Your task to perform on an android device: turn vacation reply on in the gmail app Image 0: 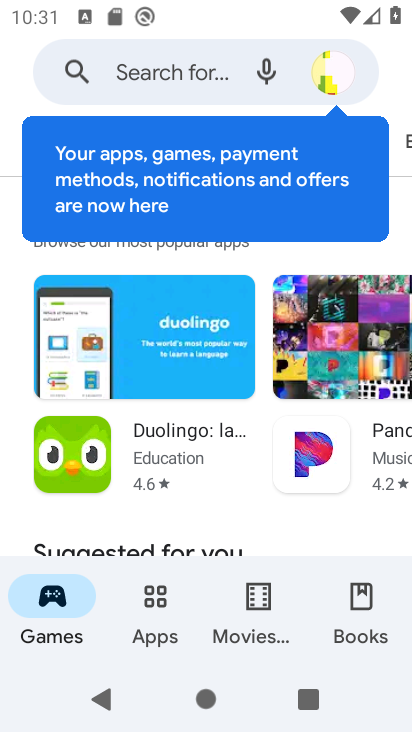
Step 0: press home button
Your task to perform on an android device: turn vacation reply on in the gmail app Image 1: 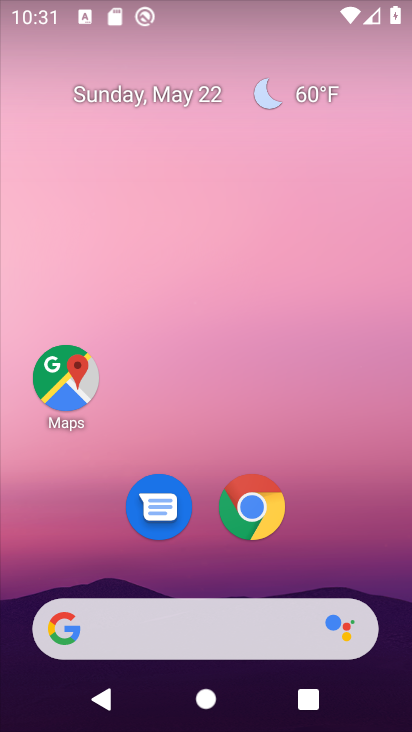
Step 1: drag from (198, 572) to (219, 109)
Your task to perform on an android device: turn vacation reply on in the gmail app Image 2: 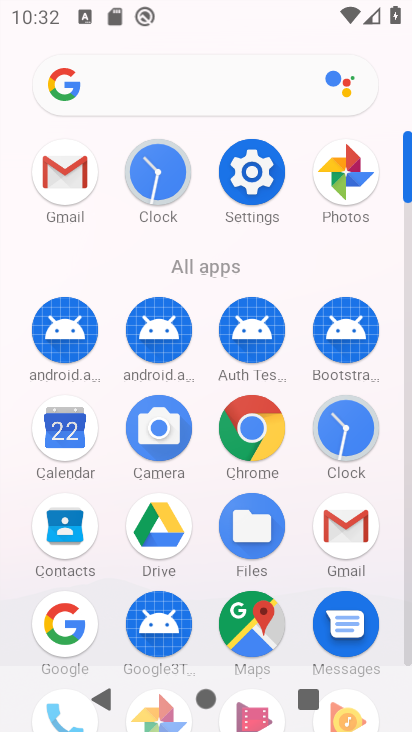
Step 2: click (81, 197)
Your task to perform on an android device: turn vacation reply on in the gmail app Image 3: 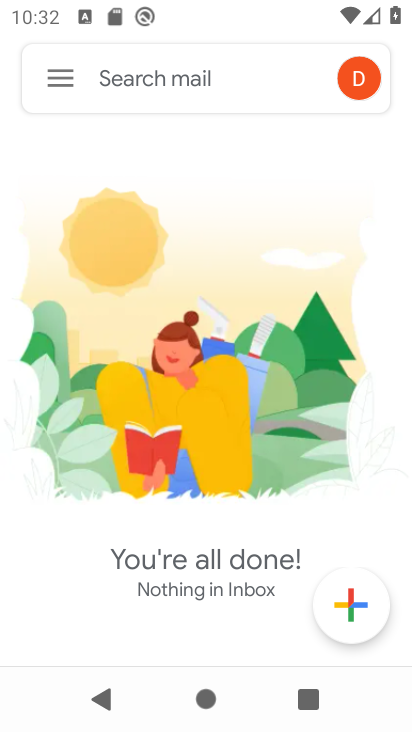
Step 3: click (63, 78)
Your task to perform on an android device: turn vacation reply on in the gmail app Image 4: 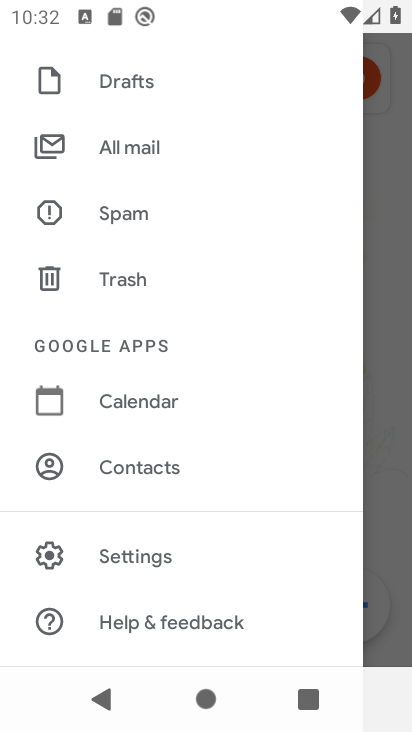
Step 4: click (141, 564)
Your task to perform on an android device: turn vacation reply on in the gmail app Image 5: 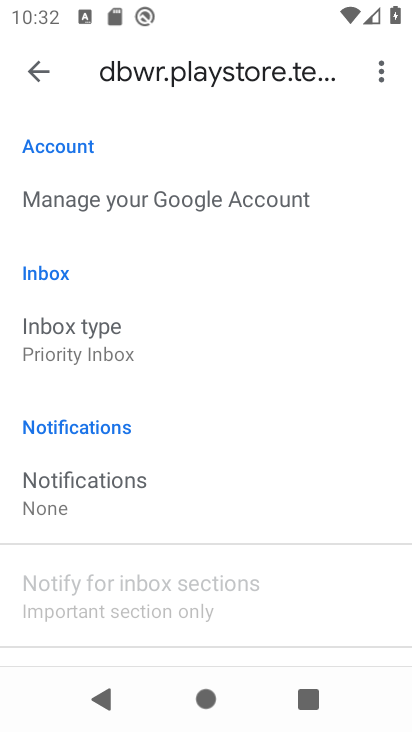
Step 5: drag from (141, 564) to (170, 196)
Your task to perform on an android device: turn vacation reply on in the gmail app Image 6: 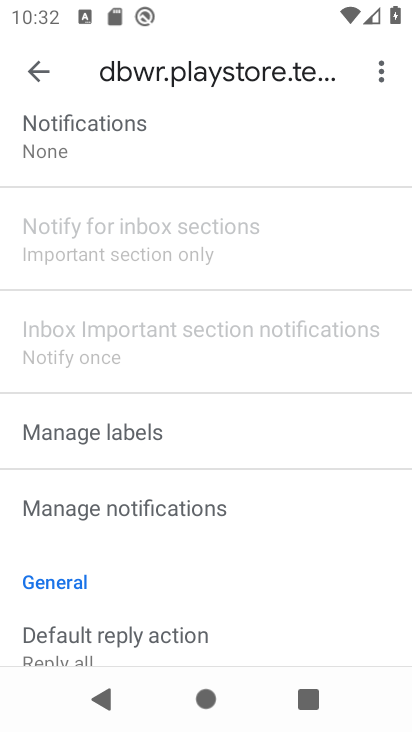
Step 6: drag from (140, 599) to (164, 167)
Your task to perform on an android device: turn vacation reply on in the gmail app Image 7: 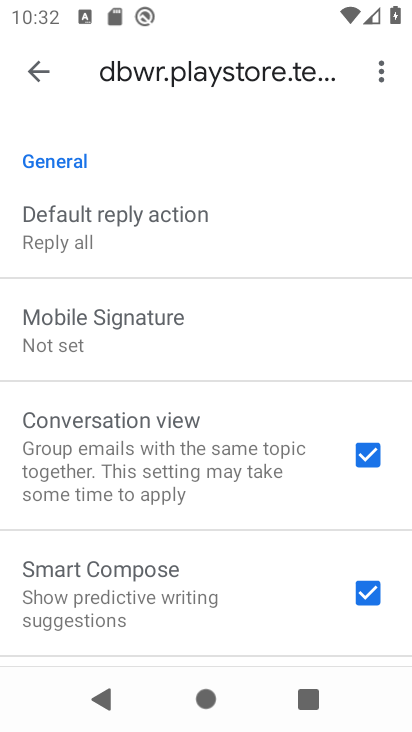
Step 7: drag from (147, 605) to (197, 157)
Your task to perform on an android device: turn vacation reply on in the gmail app Image 8: 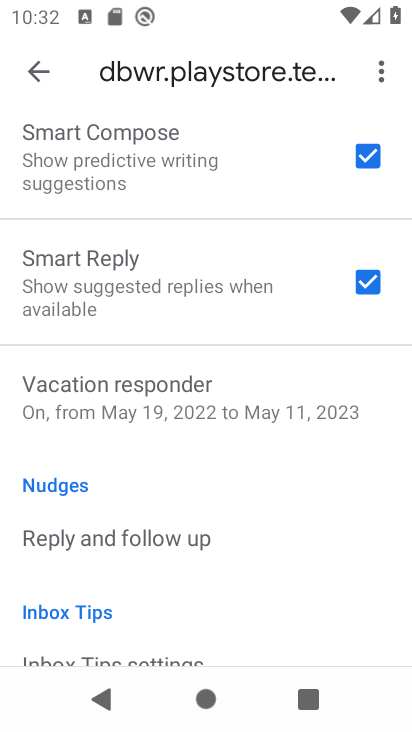
Step 8: click (173, 382)
Your task to perform on an android device: turn vacation reply on in the gmail app Image 9: 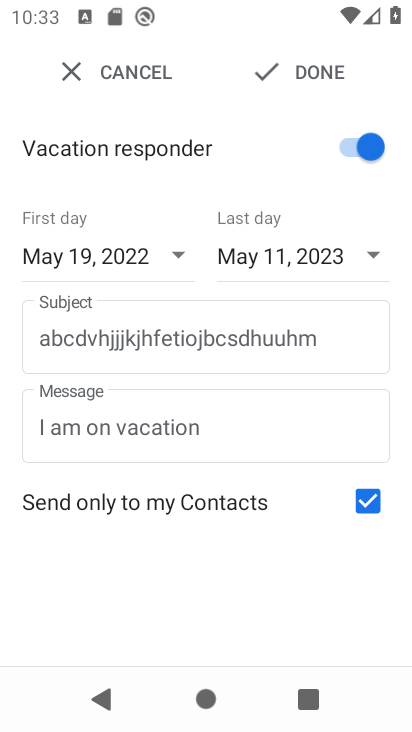
Step 9: click (320, 77)
Your task to perform on an android device: turn vacation reply on in the gmail app Image 10: 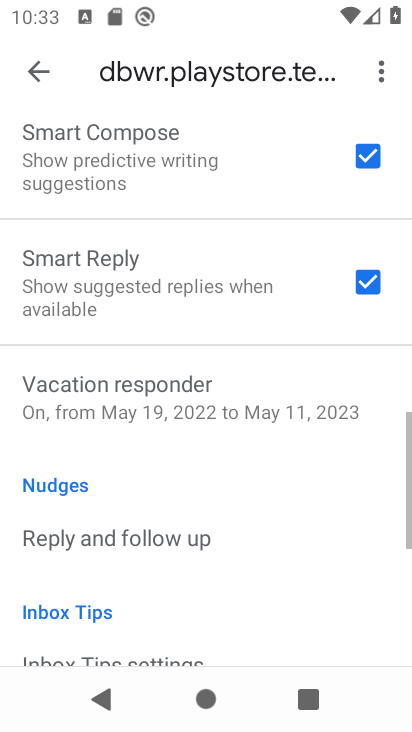
Step 10: task complete